Your task to perform on an android device: Open the Play Movies app and select the watchlist tab. Image 0: 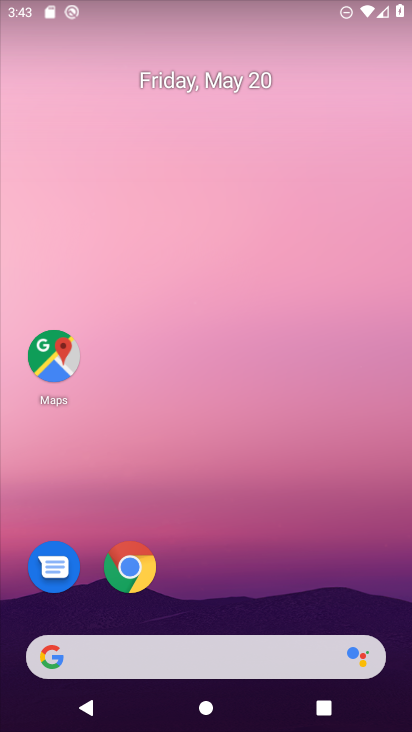
Step 0: drag from (222, 724) to (203, 140)
Your task to perform on an android device: Open the Play Movies app and select the watchlist tab. Image 1: 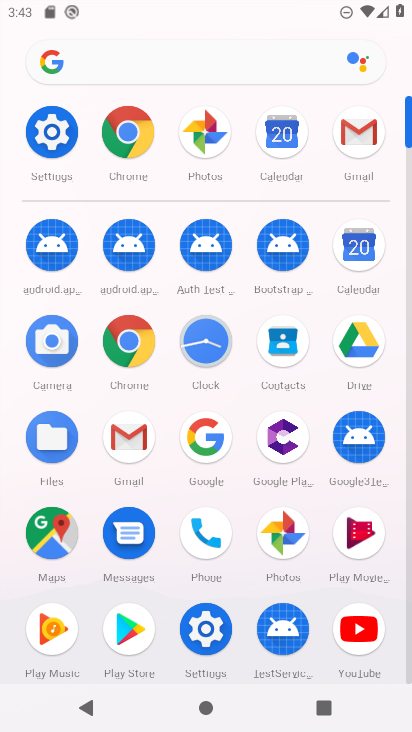
Step 1: click (358, 536)
Your task to perform on an android device: Open the Play Movies app and select the watchlist tab. Image 2: 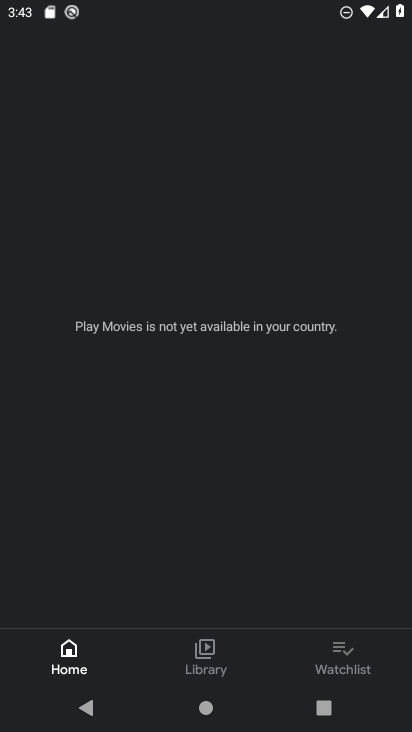
Step 2: click (342, 654)
Your task to perform on an android device: Open the Play Movies app and select the watchlist tab. Image 3: 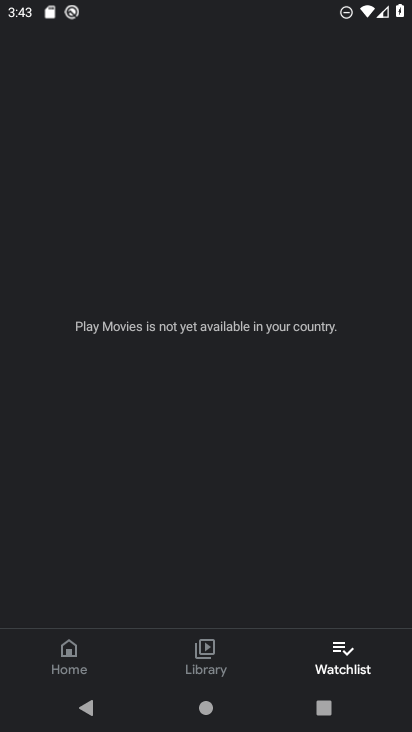
Step 3: task complete